Your task to perform on an android device: check out phone information Image 0: 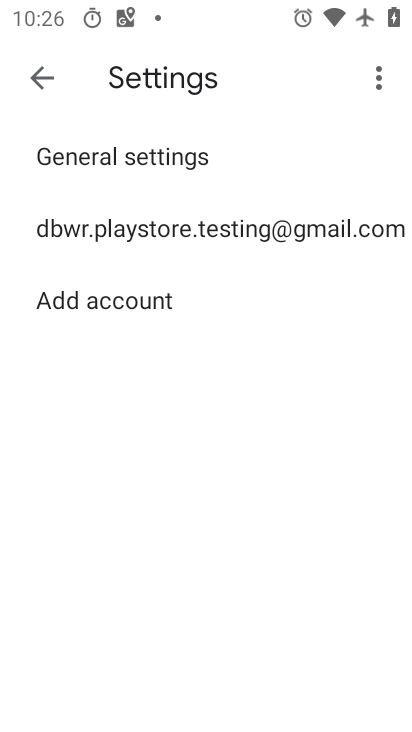
Step 0: press home button
Your task to perform on an android device: check out phone information Image 1: 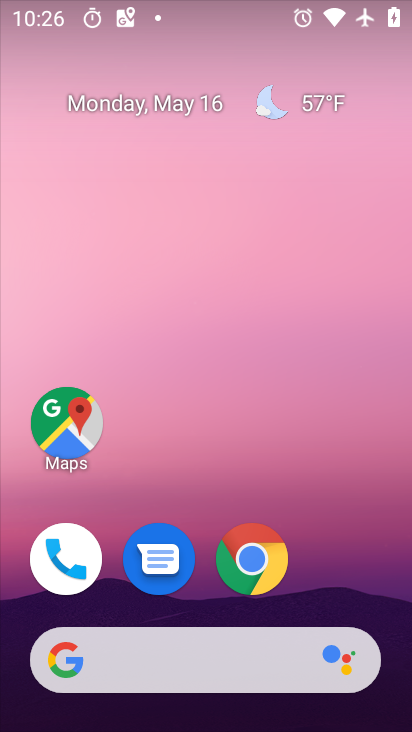
Step 1: click (83, 558)
Your task to perform on an android device: check out phone information Image 2: 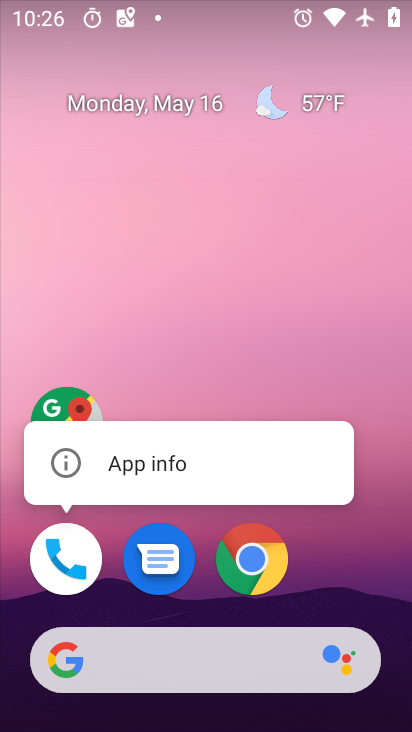
Step 2: click (140, 473)
Your task to perform on an android device: check out phone information Image 3: 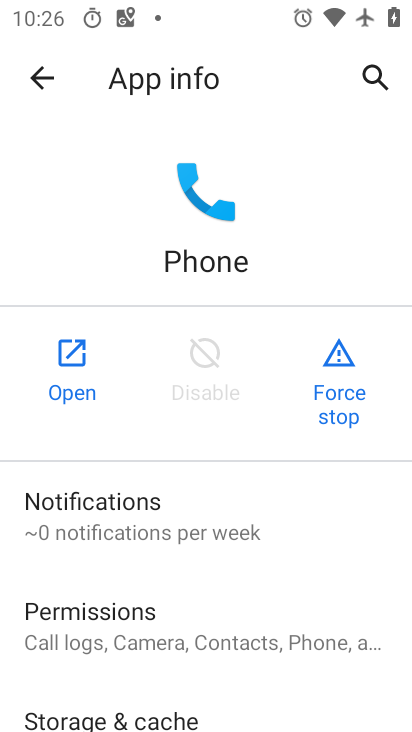
Step 3: task complete